Your task to perform on an android device: Open the phone app and click the voicemail tab. Image 0: 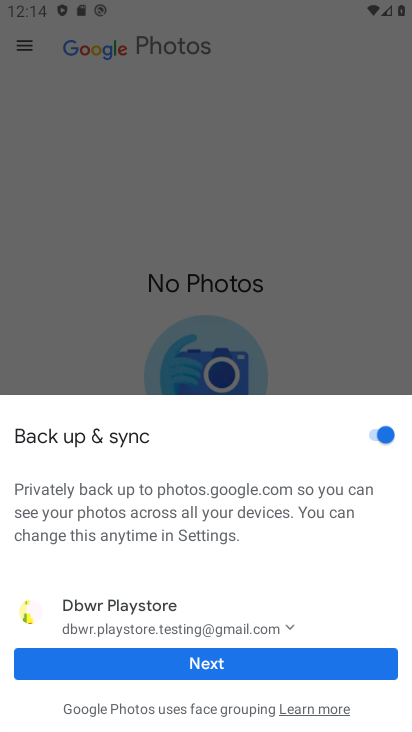
Step 0: click (204, 667)
Your task to perform on an android device: Open the phone app and click the voicemail tab. Image 1: 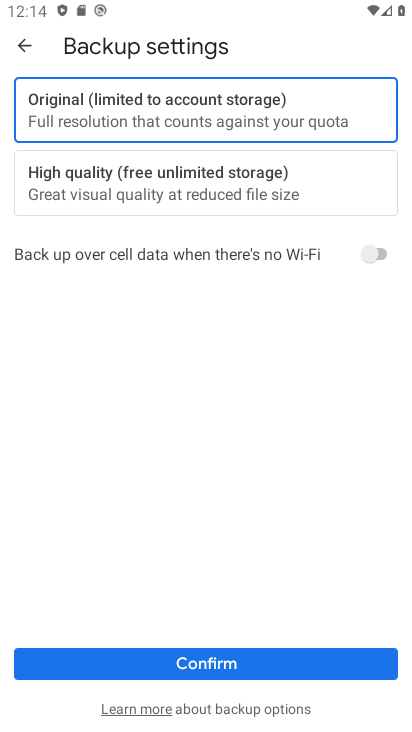
Step 1: press home button
Your task to perform on an android device: Open the phone app and click the voicemail tab. Image 2: 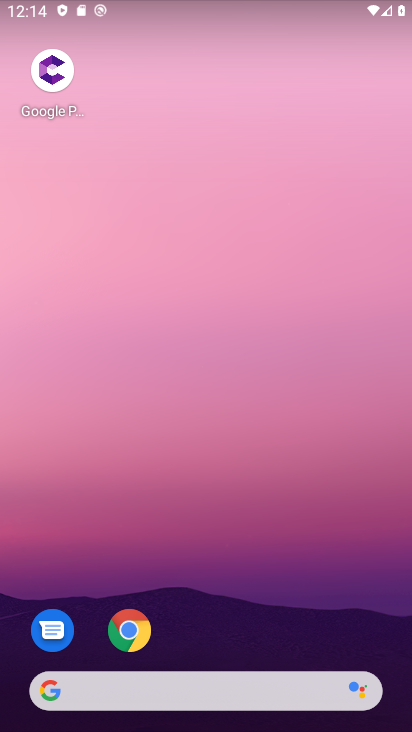
Step 2: drag from (263, 699) to (367, 244)
Your task to perform on an android device: Open the phone app and click the voicemail tab. Image 3: 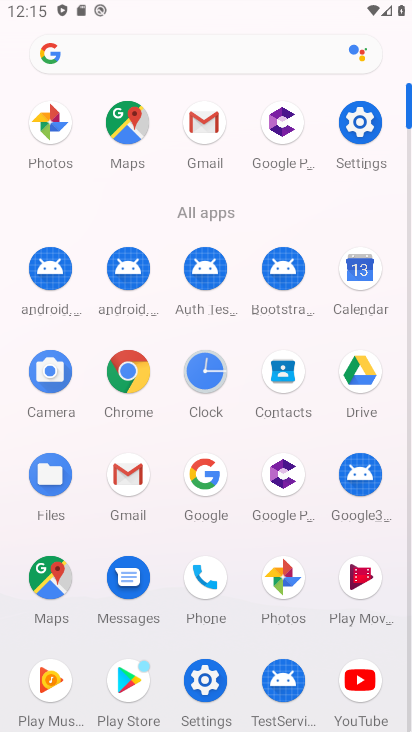
Step 3: click (209, 574)
Your task to perform on an android device: Open the phone app and click the voicemail tab. Image 4: 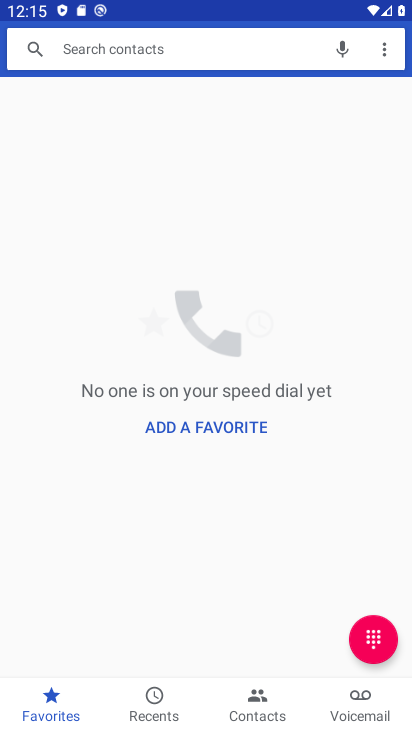
Step 4: click (347, 701)
Your task to perform on an android device: Open the phone app and click the voicemail tab. Image 5: 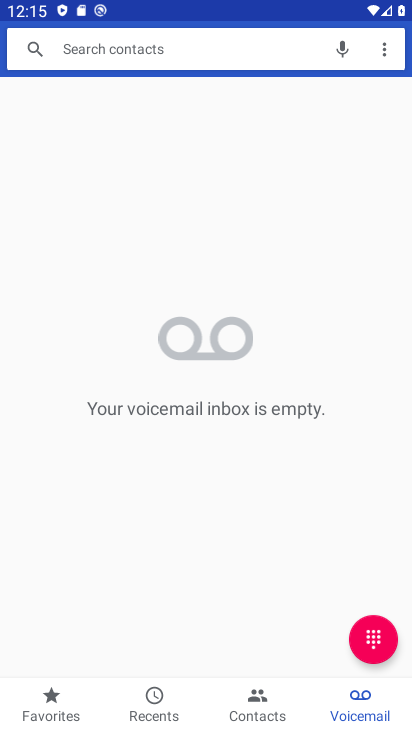
Step 5: task complete